Your task to perform on an android device: open a bookmark in the chrome app Image 0: 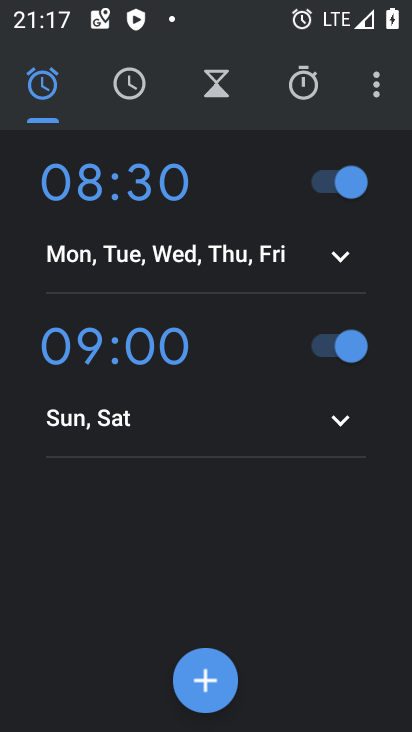
Step 0: press home button
Your task to perform on an android device: open a bookmark in the chrome app Image 1: 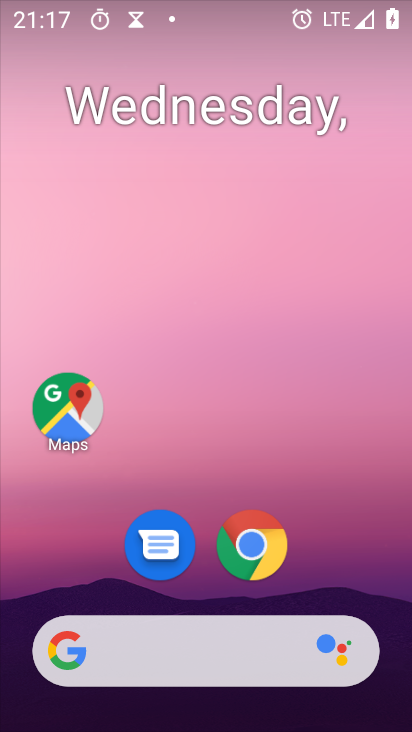
Step 1: click (255, 554)
Your task to perform on an android device: open a bookmark in the chrome app Image 2: 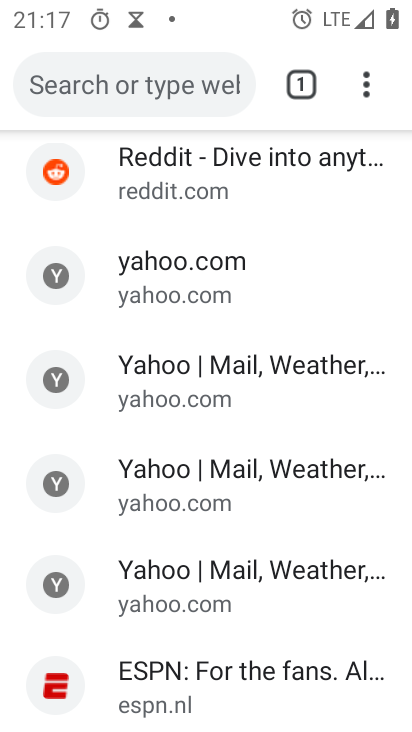
Step 2: task complete